Your task to perform on an android device: open app "Spotify" Image 0: 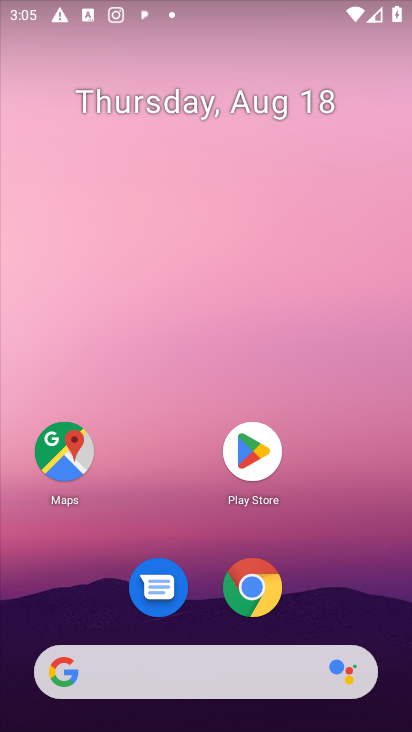
Step 0: click (264, 445)
Your task to perform on an android device: open app "Spotify" Image 1: 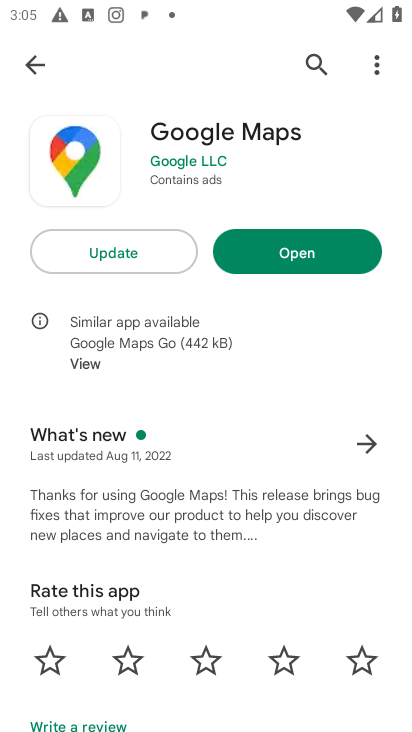
Step 1: click (313, 63)
Your task to perform on an android device: open app "Spotify" Image 2: 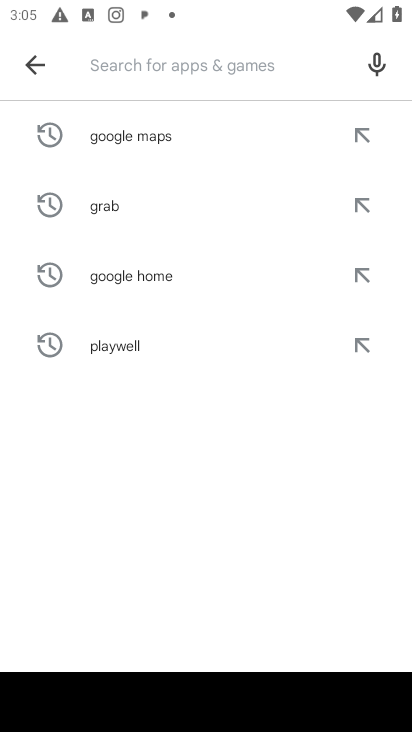
Step 2: type "Spotify"
Your task to perform on an android device: open app "Spotify" Image 3: 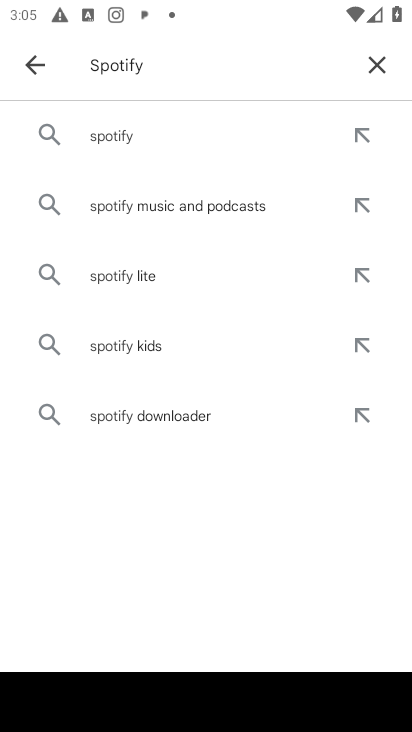
Step 3: click (107, 128)
Your task to perform on an android device: open app "Spotify" Image 4: 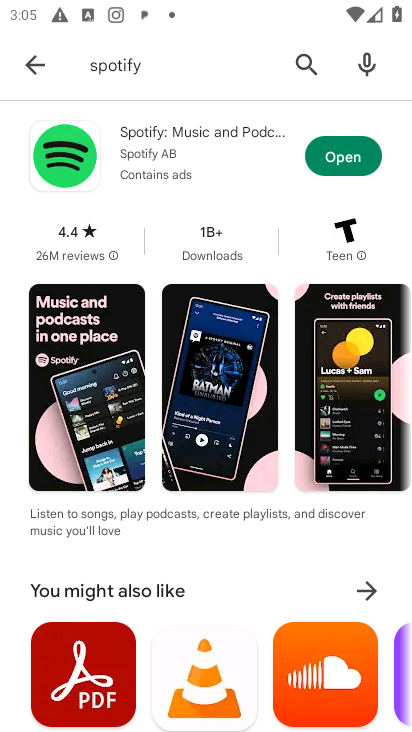
Step 4: click (333, 158)
Your task to perform on an android device: open app "Spotify" Image 5: 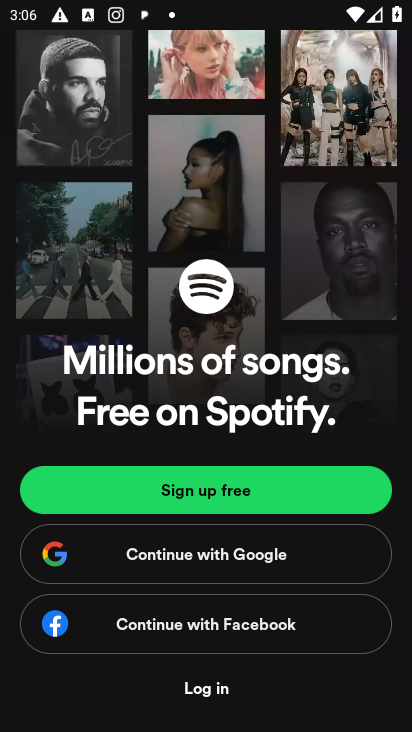
Step 5: task complete